Your task to perform on an android device: toggle wifi Image 0: 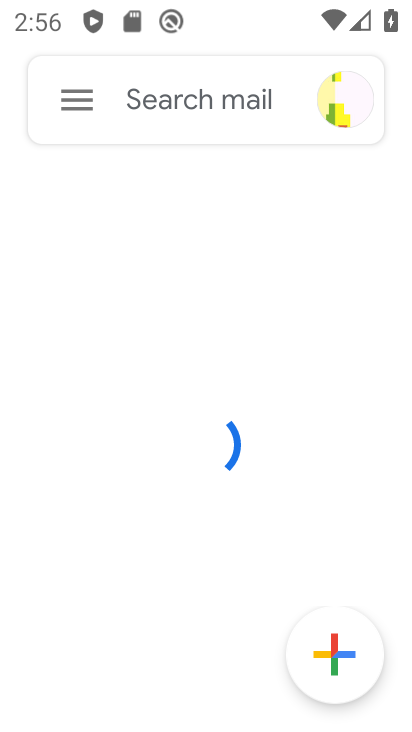
Step 0: press home button
Your task to perform on an android device: toggle wifi Image 1: 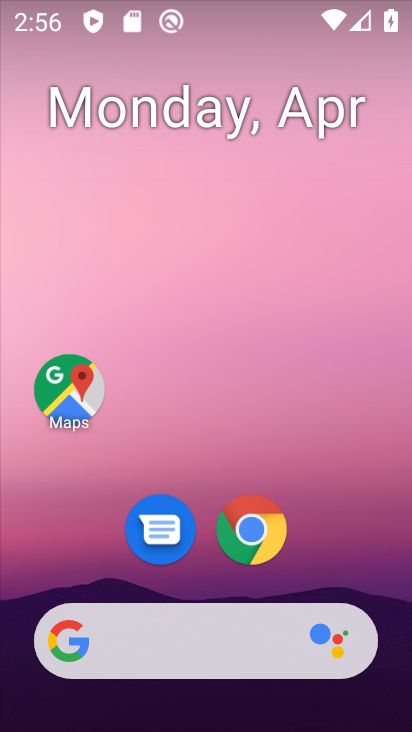
Step 1: drag from (281, 678) to (351, 205)
Your task to perform on an android device: toggle wifi Image 2: 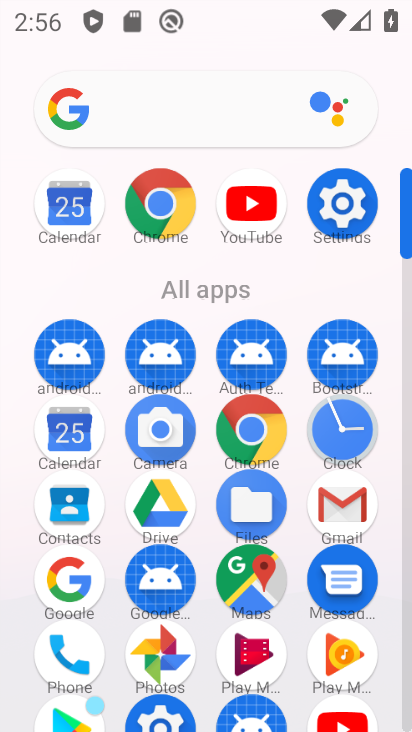
Step 2: click (351, 210)
Your task to perform on an android device: toggle wifi Image 3: 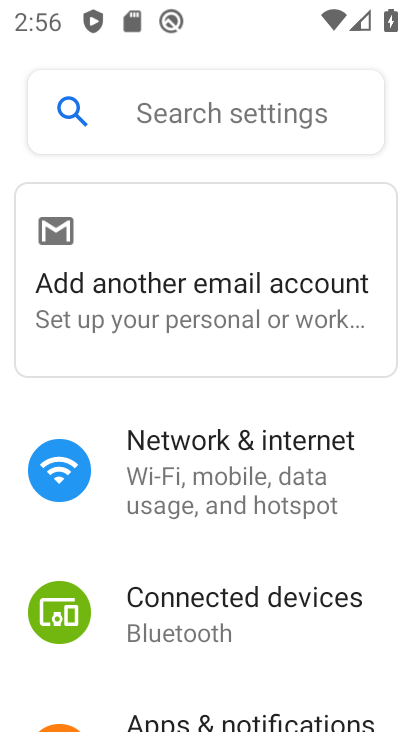
Step 3: click (207, 457)
Your task to perform on an android device: toggle wifi Image 4: 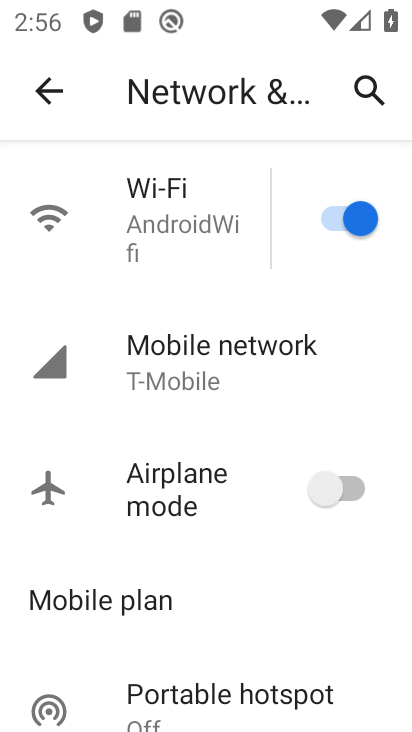
Step 4: click (195, 243)
Your task to perform on an android device: toggle wifi Image 5: 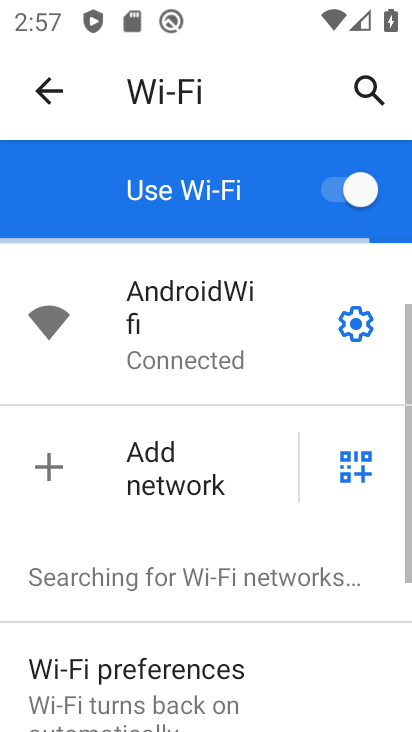
Step 5: task complete